Your task to perform on an android device: Open privacy settings Image 0: 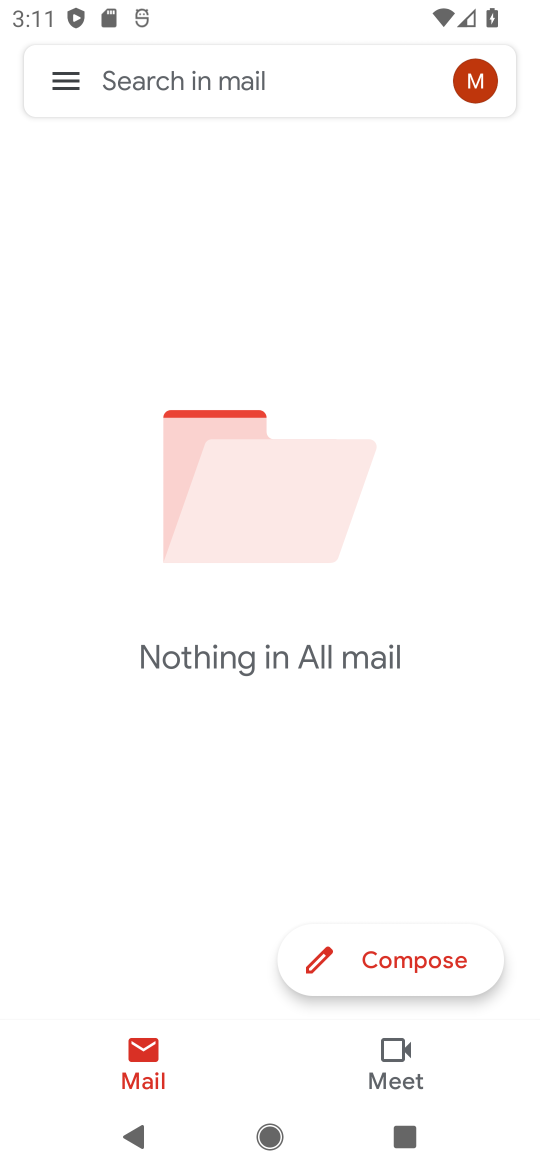
Step 0: press home button
Your task to perform on an android device: Open privacy settings Image 1: 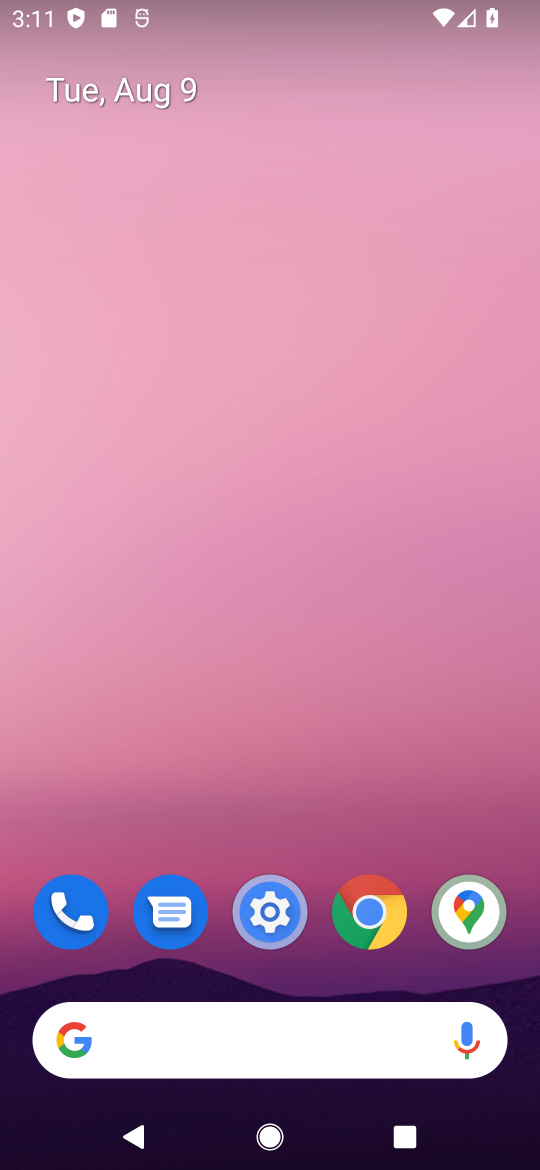
Step 1: click (264, 912)
Your task to perform on an android device: Open privacy settings Image 2: 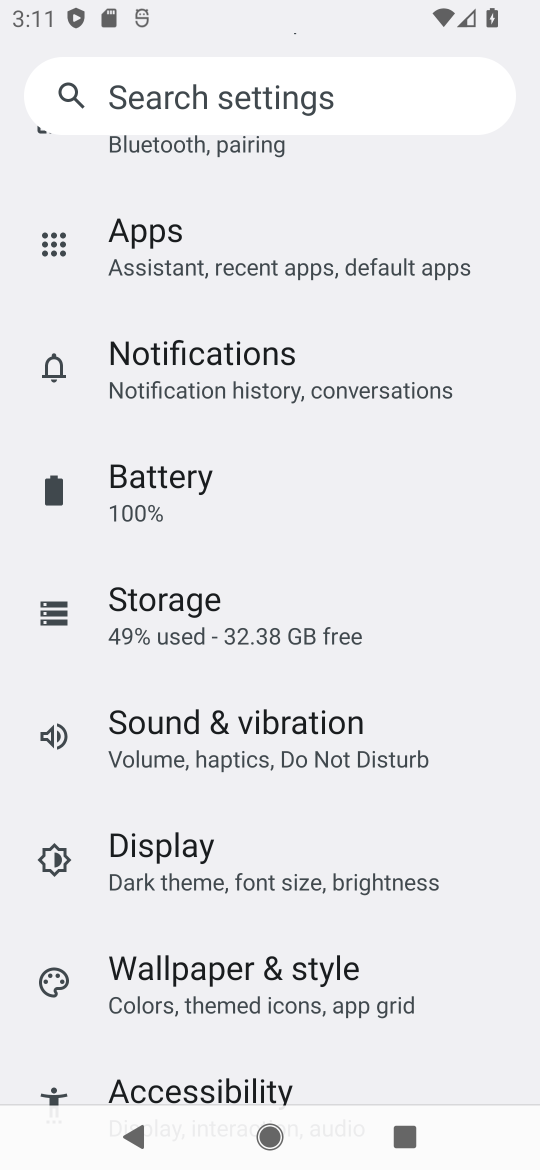
Step 2: drag from (412, 943) to (395, 413)
Your task to perform on an android device: Open privacy settings Image 3: 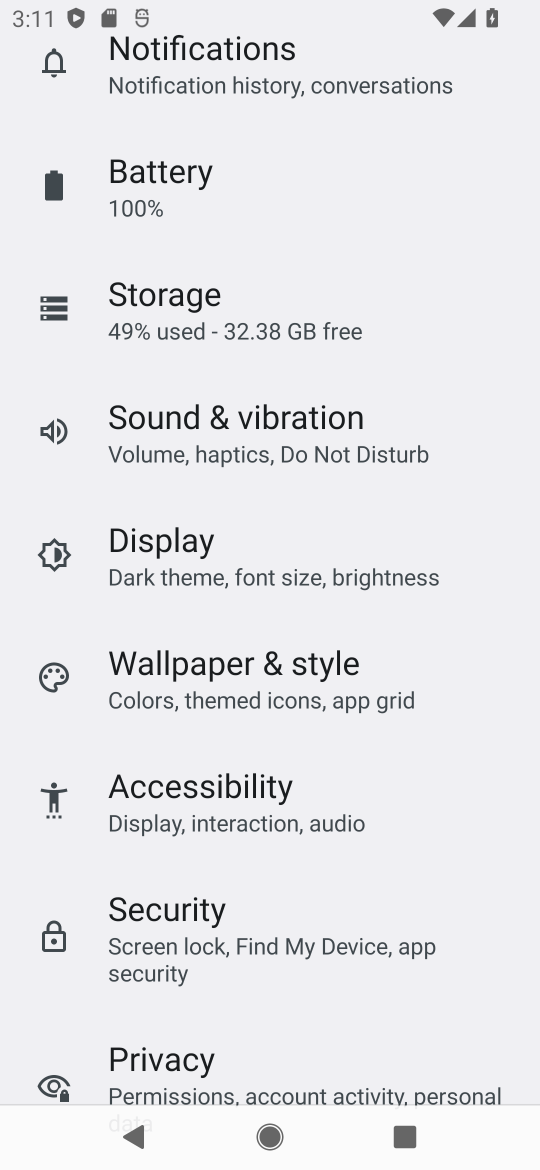
Step 3: click (135, 1062)
Your task to perform on an android device: Open privacy settings Image 4: 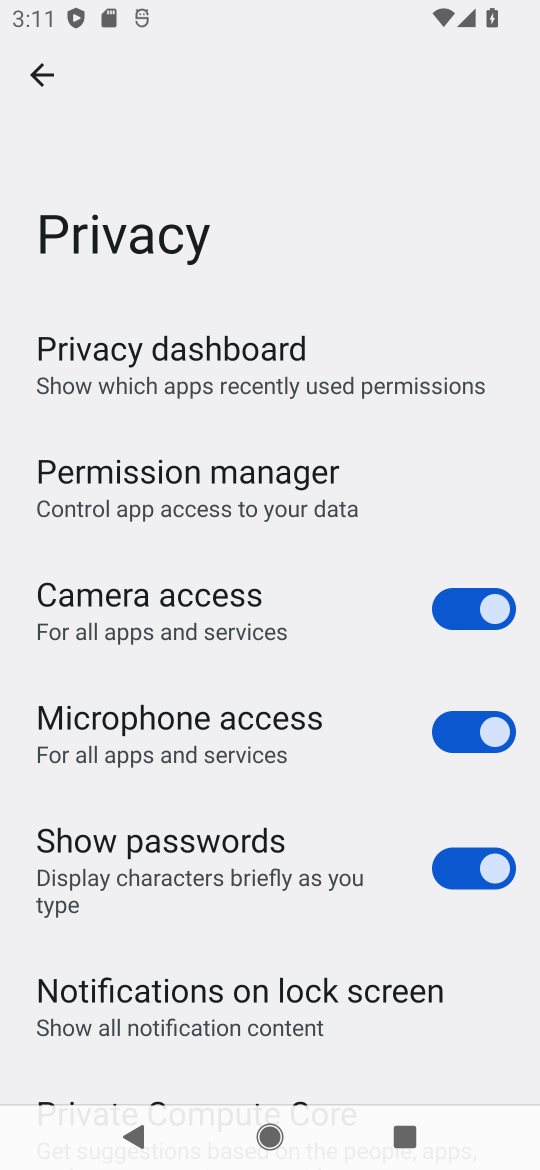
Step 4: task complete